Your task to perform on an android device: turn on sleep mode Image 0: 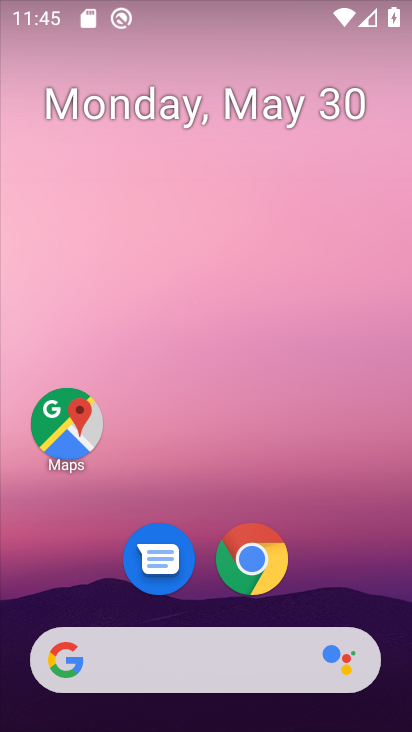
Step 0: drag from (329, 608) to (214, 43)
Your task to perform on an android device: turn on sleep mode Image 1: 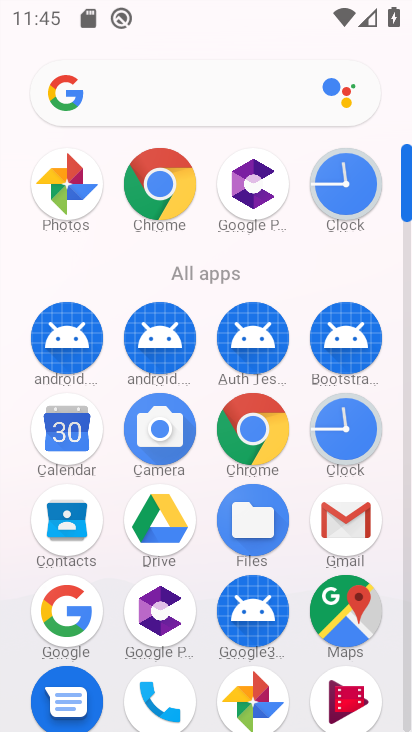
Step 1: click (402, 698)
Your task to perform on an android device: turn on sleep mode Image 2: 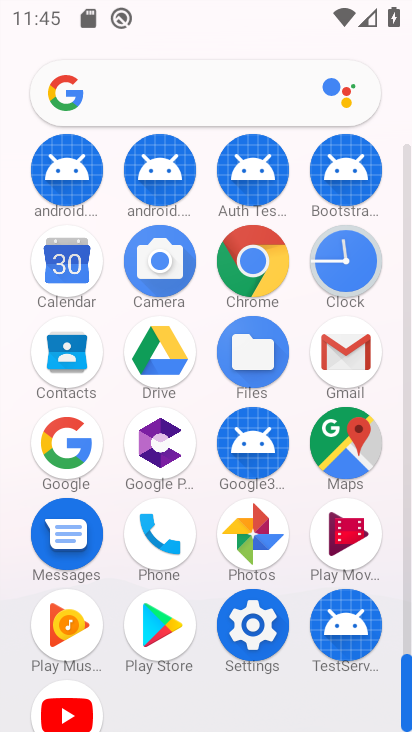
Step 2: click (246, 646)
Your task to perform on an android device: turn on sleep mode Image 3: 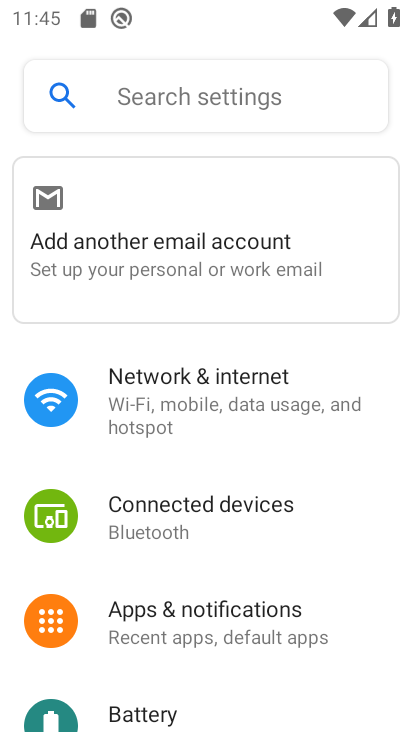
Step 3: drag from (226, 685) to (233, 311)
Your task to perform on an android device: turn on sleep mode Image 4: 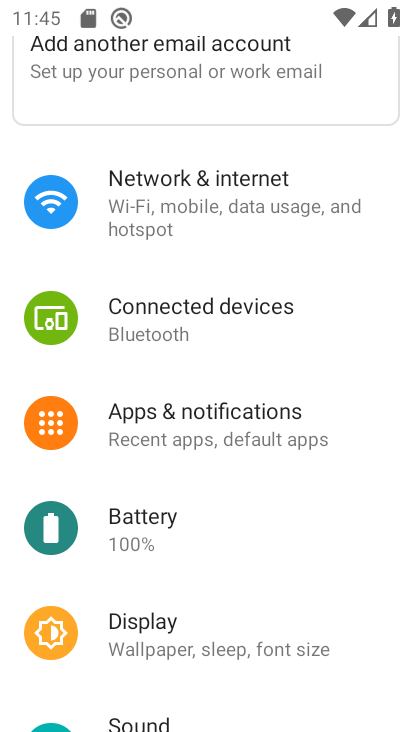
Step 4: click (195, 634)
Your task to perform on an android device: turn on sleep mode Image 5: 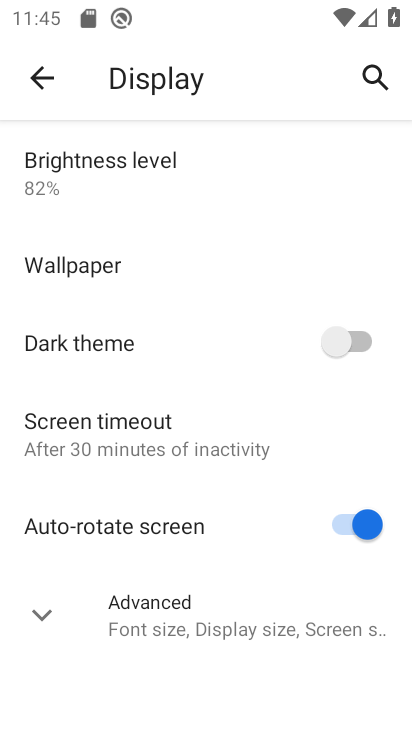
Step 5: click (192, 625)
Your task to perform on an android device: turn on sleep mode Image 6: 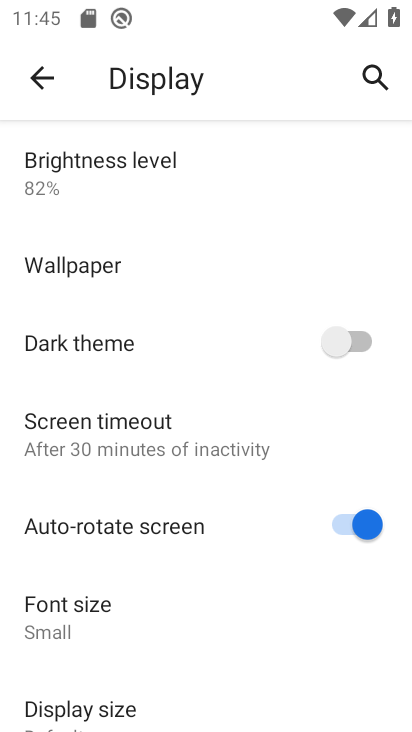
Step 6: task complete